Your task to perform on an android device: set default search engine in the chrome app Image 0: 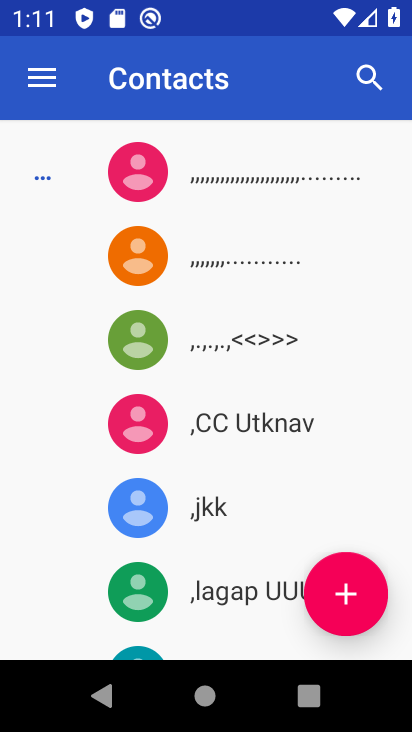
Step 0: press home button
Your task to perform on an android device: set default search engine in the chrome app Image 1: 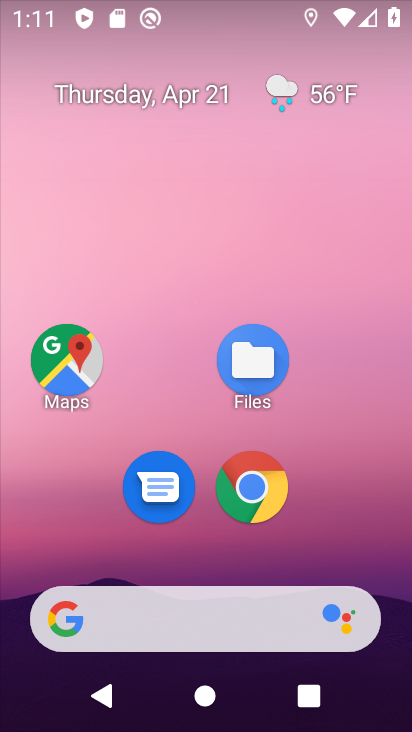
Step 1: click (277, 503)
Your task to perform on an android device: set default search engine in the chrome app Image 2: 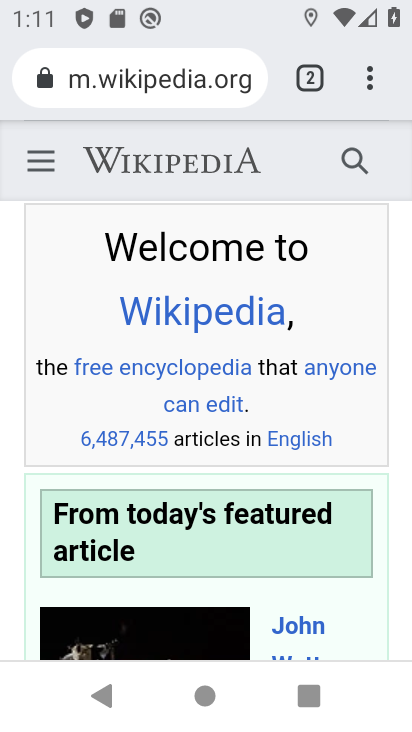
Step 2: drag from (371, 89) to (182, 554)
Your task to perform on an android device: set default search engine in the chrome app Image 3: 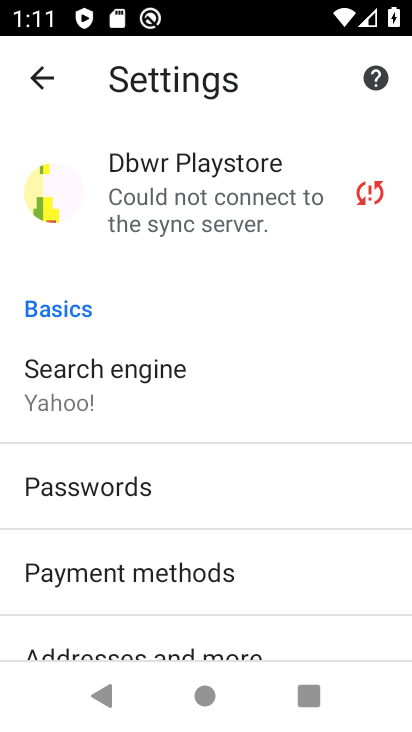
Step 3: drag from (319, 626) to (331, 438)
Your task to perform on an android device: set default search engine in the chrome app Image 4: 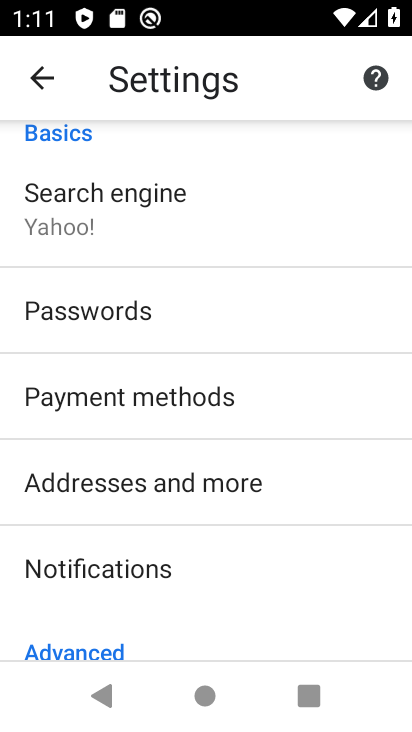
Step 4: drag from (283, 594) to (304, 330)
Your task to perform on an android device: set default search engine in the chrome app Image 5: 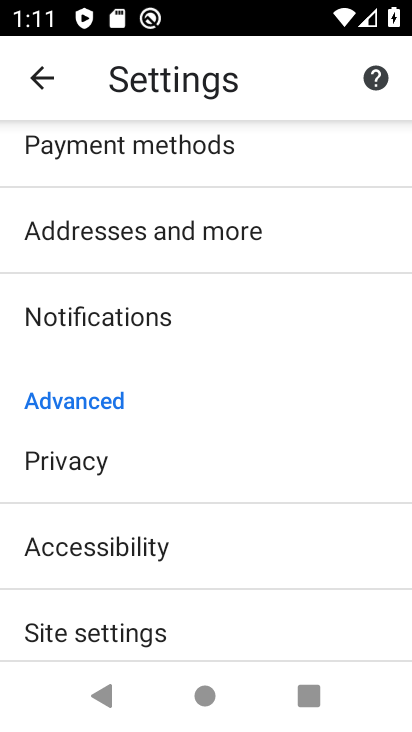
Step 5: drag from (277, 558) to (296, 418)
Your task to perform on an android device: set default search engine in the chrome app Image 6: 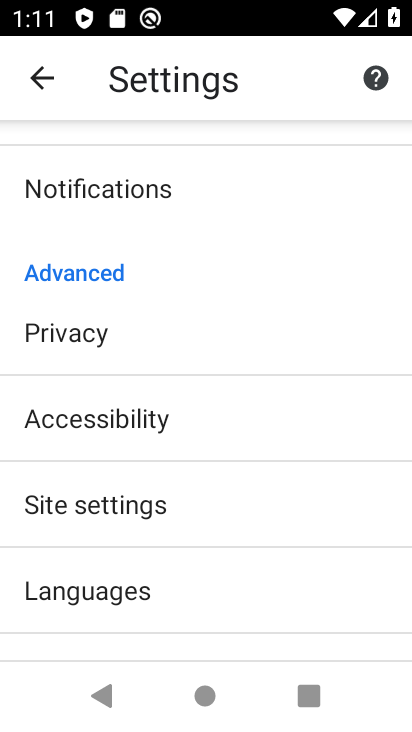
Step 6: drag from (255, 590) to (296, 396)
Your task to perform on an android device: set default search engine in the chrome app Image 7: 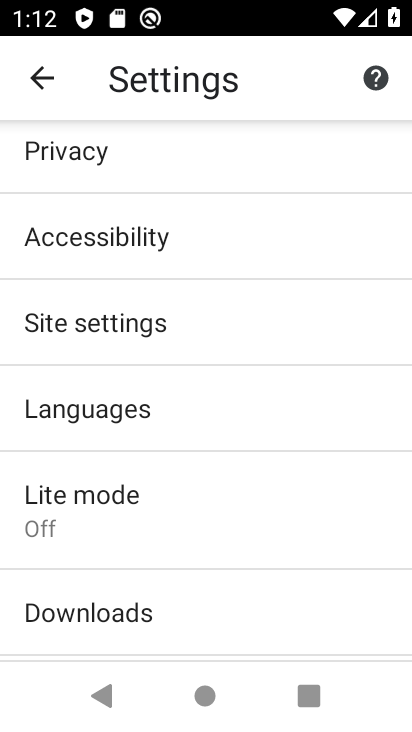
Step 7: drag from (242, 145) to (236, 595)
Your task to perform on an android device: set default search engine in the chrome app Image 8: 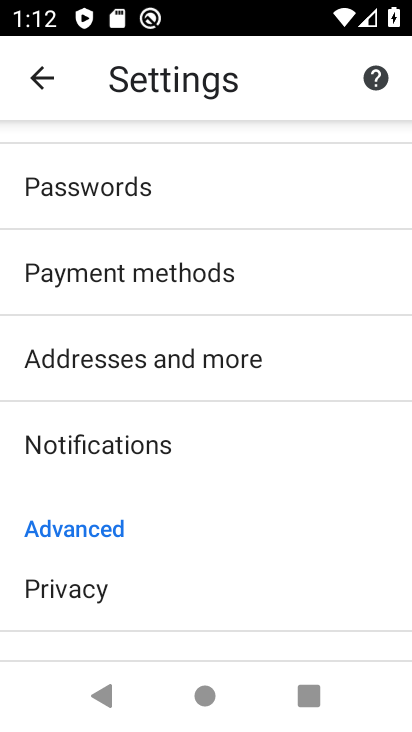
Step 8: drag from (243, 238) to (268, 572)
Your task to perform on an android device: set default search engine in the chrome app Image 9: 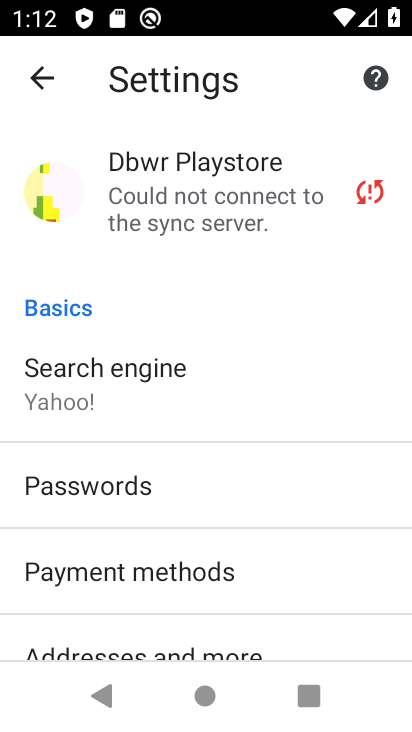
Step 9: click (102, 374)
Your task to perform on an android device: set default search engine in the chrome app Image 10: 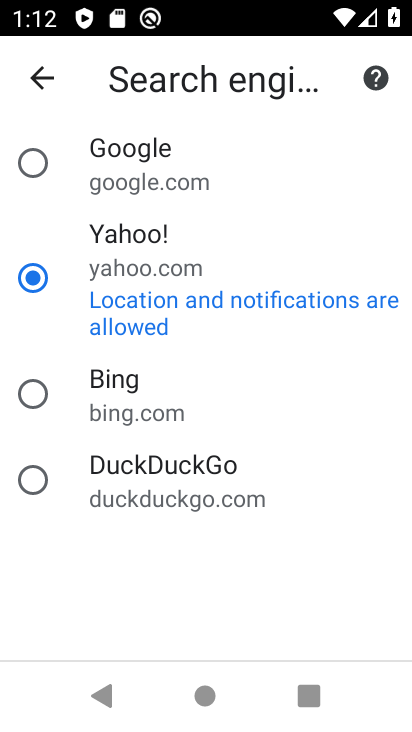
Step 10: click (39, 159)
Your task to perform on an android device: set default search engine in the chrome app Image 11: 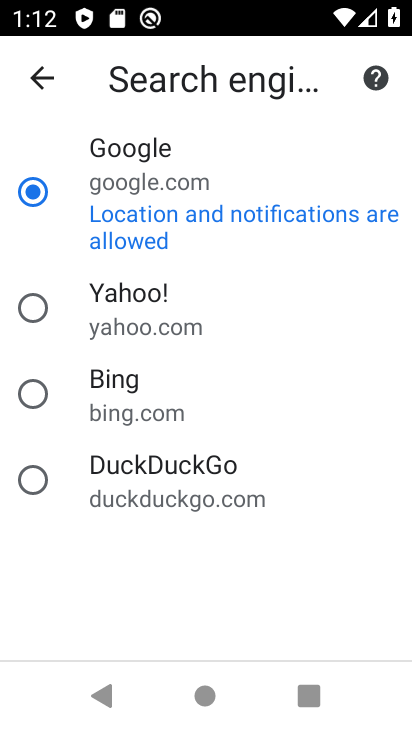
Step 11: task complete